Your task to perform on an android device: Go to location settings Image 0: 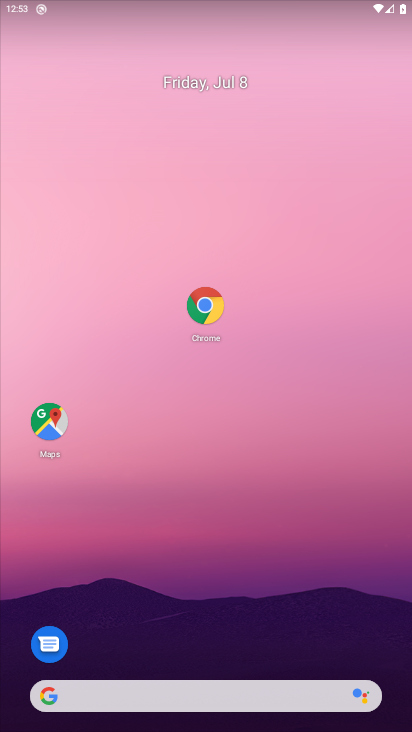
Step 0: drag from (202, 664) to (258, 269)
Your task to perform on an android device: Go to location settings Image 1: 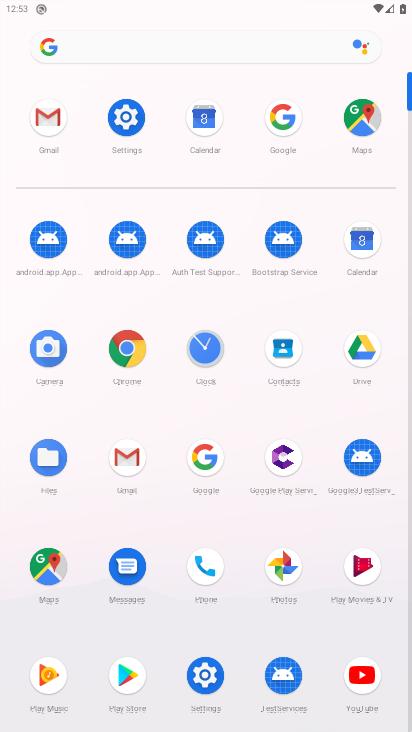
Step 1: click (117, 115)
Your task to perform on an android device: Go to location settings Image 2: 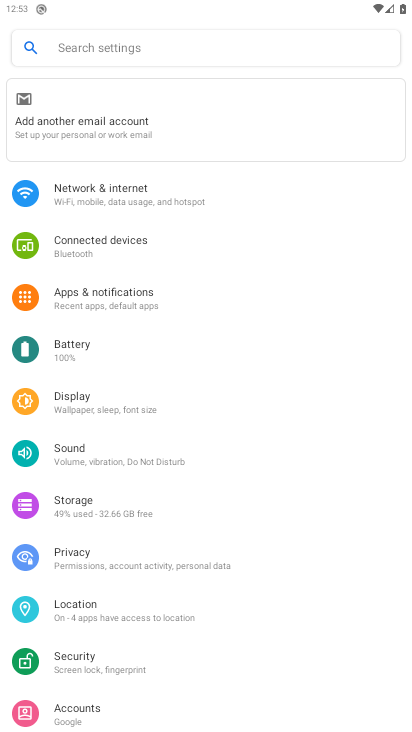
Step 2: click (85, 612)
Your task to perform on an android device: Go to location settings Image 3: 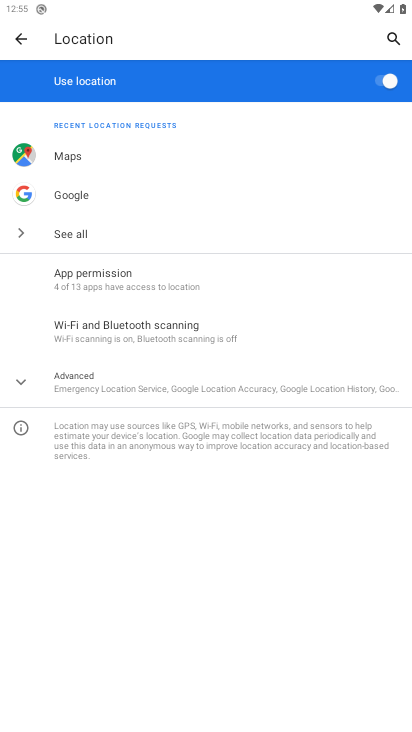
Step 3: click (120, 384)
Your task to perform on an android device: Go to location settings Image 4: 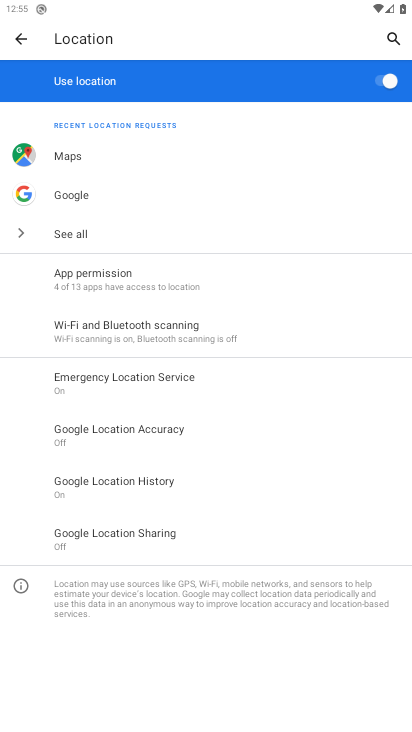
Step 4: task complete